Your task to perform on an android device: see creations saved in the google photos Image 0: 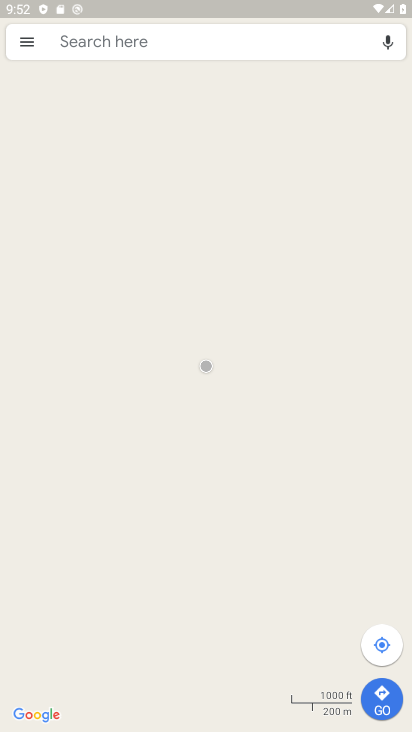
Step 0: press home button
Your task to perform on an android device: see creations saved in the google photos Image 1: 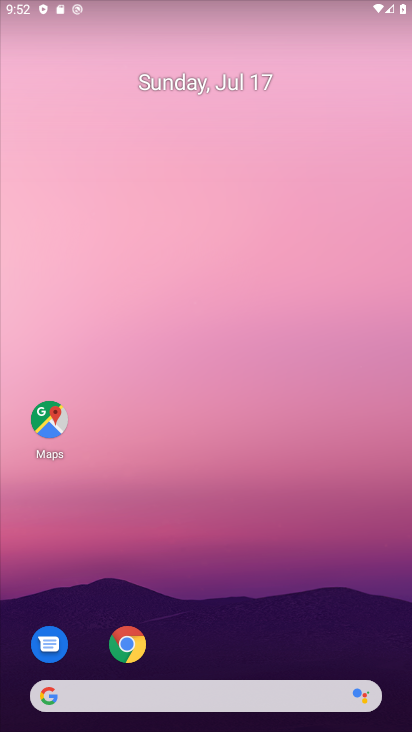
Step 1: drag from (298, 617) to (294, 76)
Your task to perform on an android device: see creations saved in the google photos Image 2: 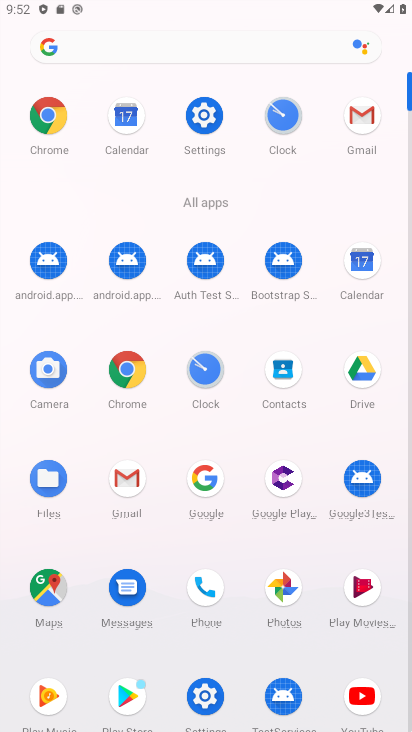
Step 2: click (278, 581)
Your task to perform on an android device: see creations saved in the google photos Image 3: 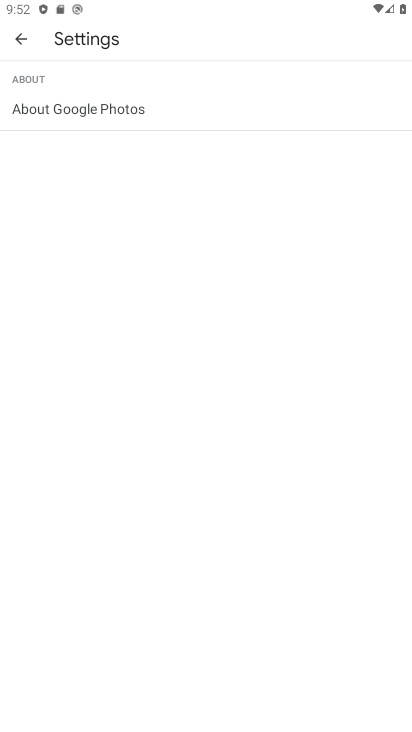
Step 3: click (26, 45)
Your task to perform on an android device: see creations saved in the google photos Image 4: 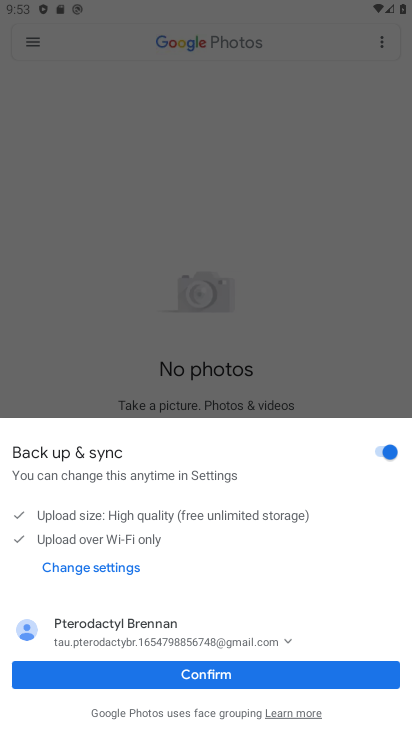
Step 4: click (184, 674)
Your task to perform on an android device: see creations saved in the google photos Image 5: 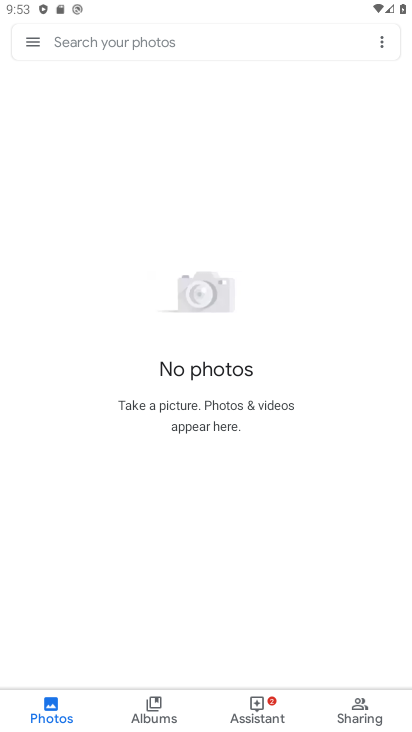
Step 5: click (161, 712)
Your task to perform on an android device: see creations saved in the google photos Image 6: 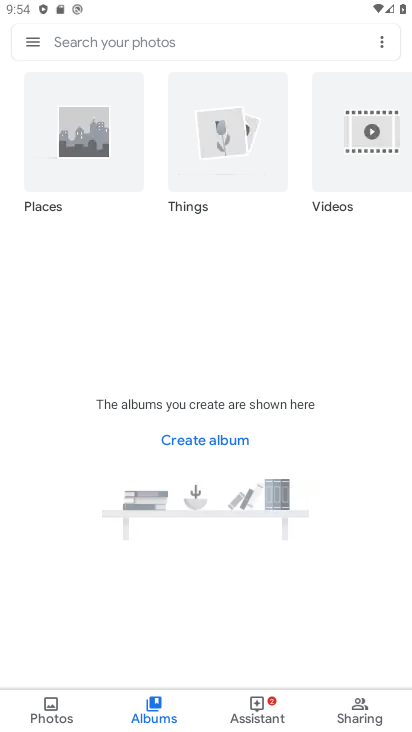
Step 6: task complete